Your task to perform on an android device: Open Google Image 0: 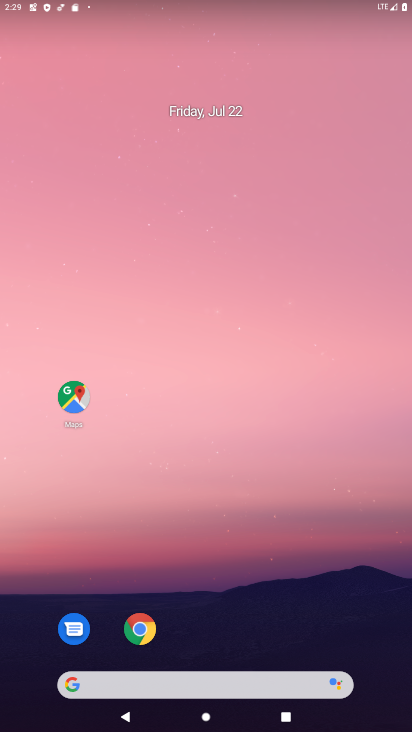
Step 0: drag from (189, 680) to (209, 172)
Your task to perform on an android device: Open Google Image 1: 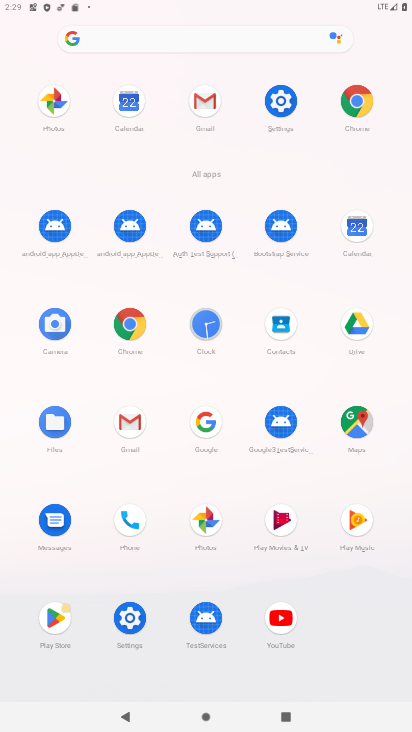
Step 1: click (206, 431)
Your task to perform on an android device: Open Google Image 2: 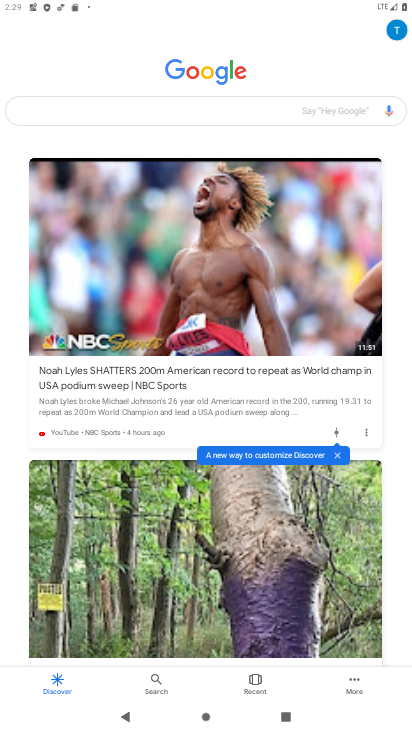
Step 2: task complete